Your task to perform on an android device: delete location history Image 0: 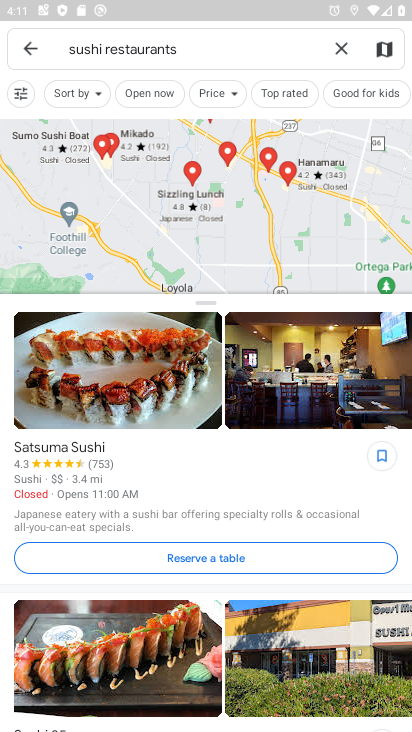
Step 0: press home button
Your task to perform on an android device: delete location history Image 1: 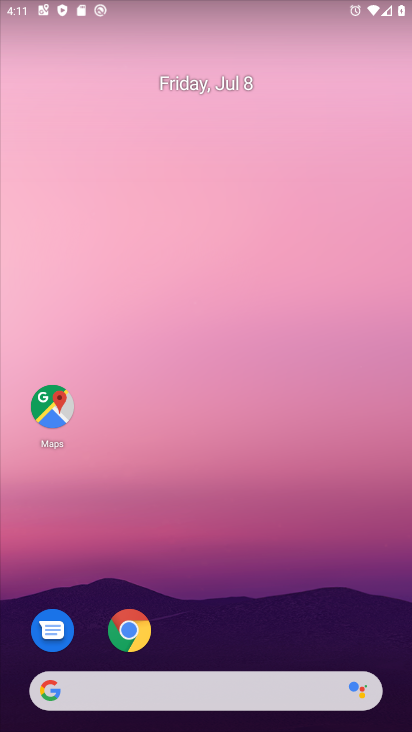
Step 1: click (51, 408)
Your task to perform on an android device: delete location history Image 2: 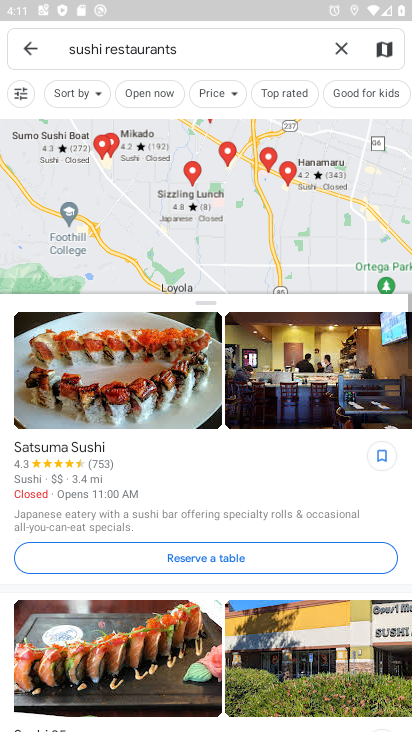
Step 2: press back button
Your task to perform on an android device: delete location history Image 3: 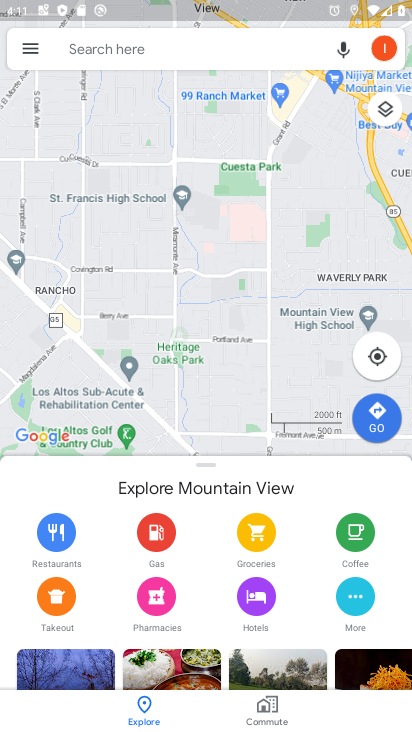
Step 3: click (27, 50)
Your task to perform on an android device: delete location history Image 4: 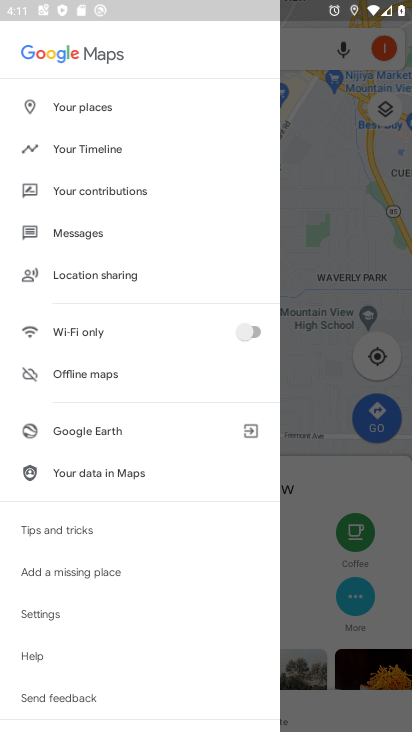
Step 4: drag from (82, 524) to (150, 423)
Your task to perform on an android device: delete location history Image 5: 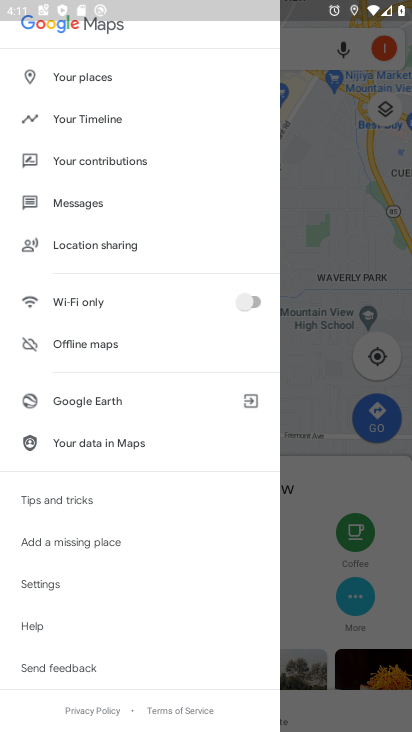
Step 5: click (57, 581)
Your task to perform on an android device: delete location history Image 6: 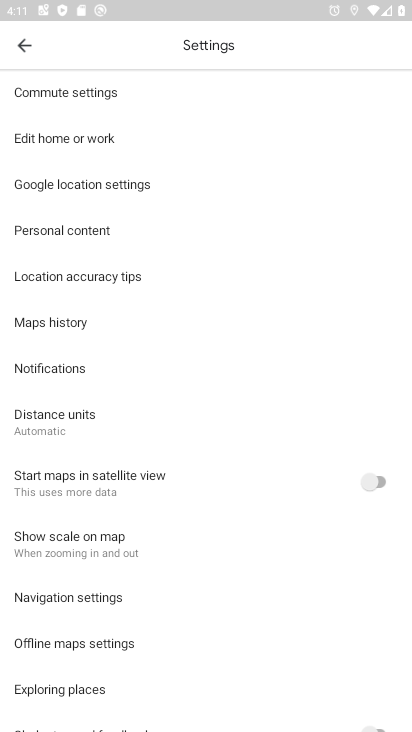
Step 6: click (79, 234)
Your task to perform on an android device: delete location history Image 7: 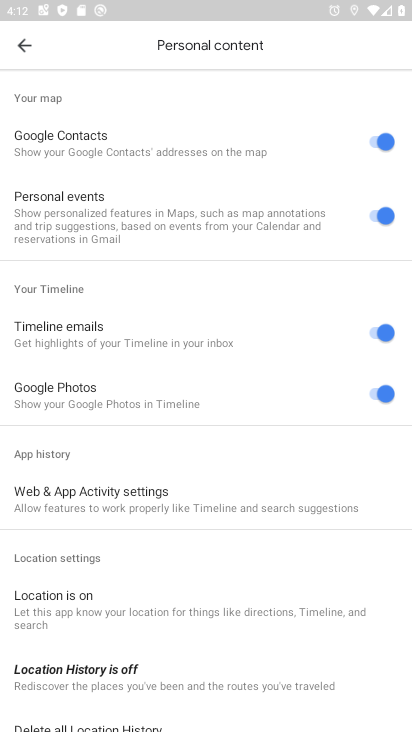
Step 7: drag from (145, 453) to (199, 331)
Your task to perform on an android device: delete location history Image 8: 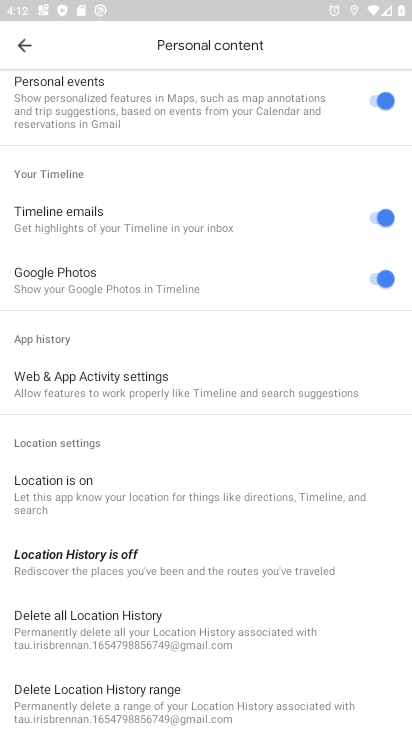
Step 8: drag from (142, 578) to (202, 459)
Your task to perform on an android device: delete location history Image 9: 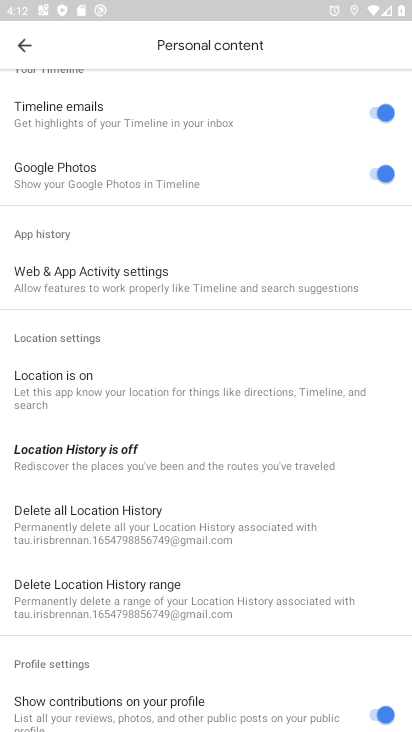
Step 9: drag from (140, 555) to (188, 458)
Your task to perform on an android device: delete location history Image 10: 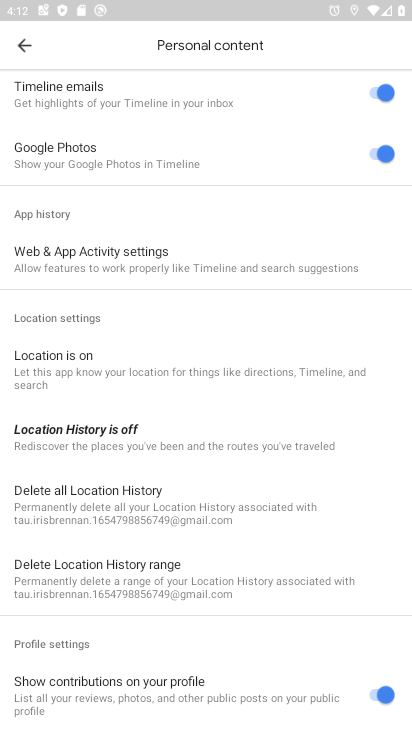
Step 10: click (145, 486)
Your task to perform on an android device: delete location history Image 11: 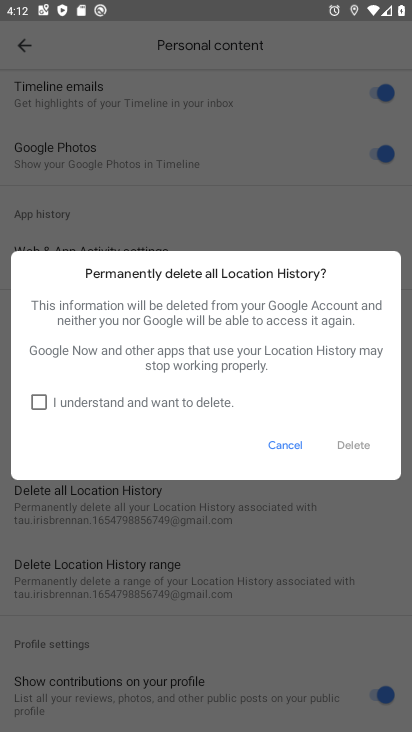
Step 11: click (41, 403)
Your task to perform on an android device: delete location history Image 12: 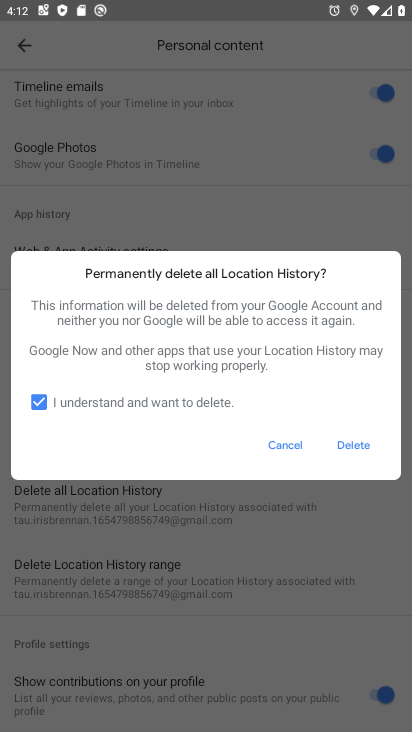
Step 12: click (354, 444)
Your task to perform on an android device: delete location history Image 13: 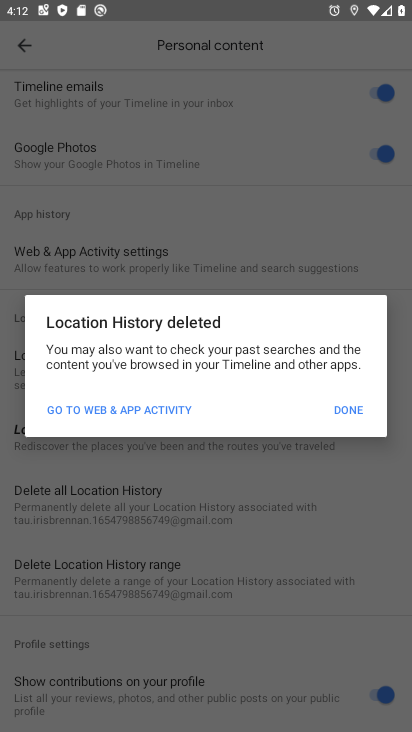
Step 13: click (346, 409)
Your task to perform on an android device: delete location history Image 14: 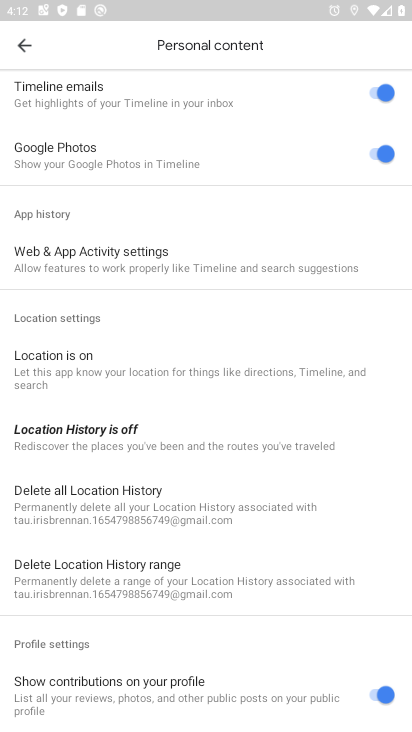
Step 14: task complete